Your task to perform on an android device: Add "rayovac triple a" to the cart on amazon, then select checkout. Image 0: 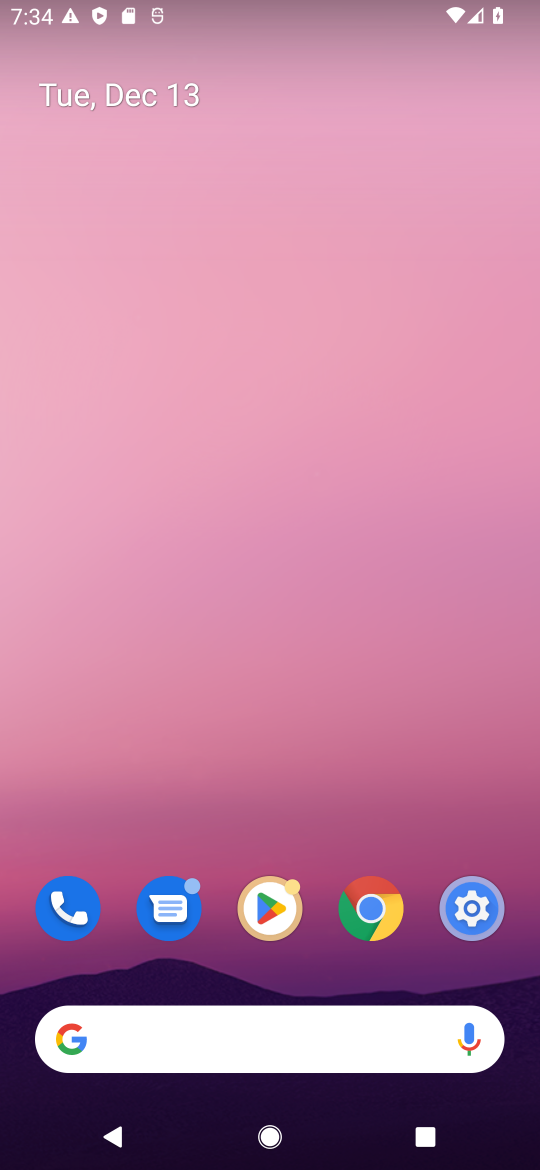
Step 0: press home button
Your task to perform on an android device: Add "rayovac triple a" to the cart on amazon, then select checkout. Image 1: 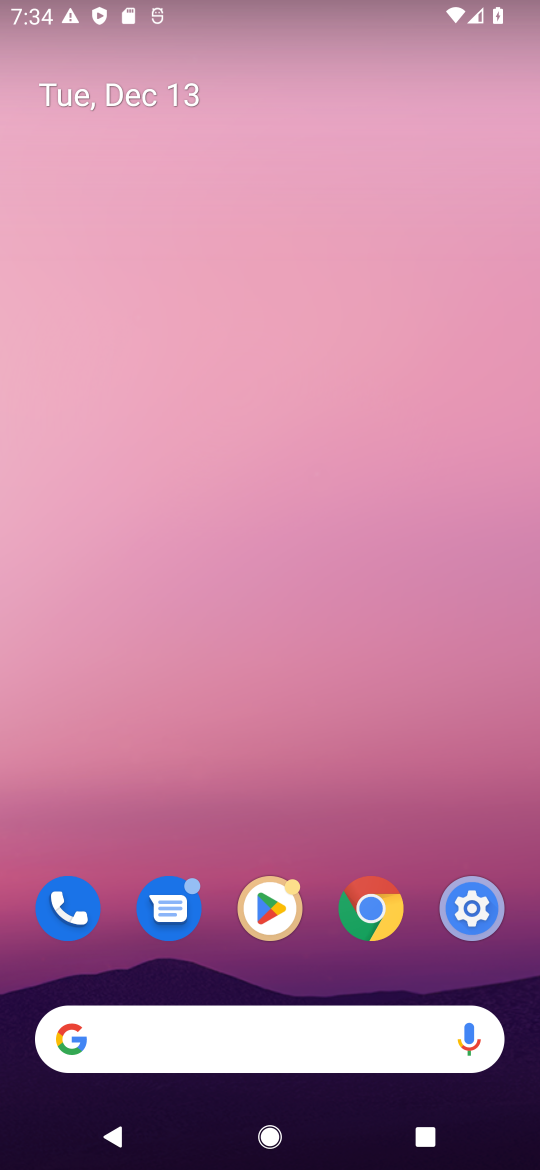
Step 1: click (111, 1027)
Your task to perform on an android device: Add "rayovac triple a" to the cart on amazon, then select checkout. Image 2: 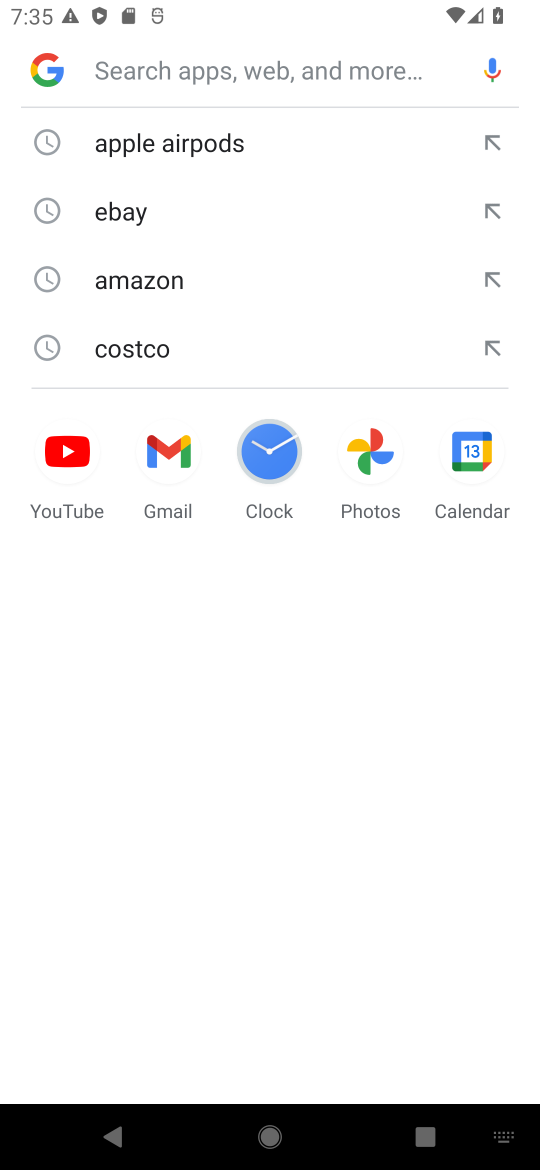
Step 2: type "amazon"
Your task to perform on an android device: Add "rayovac triple a" to the cart on amazon, then select checkout. Image 3: 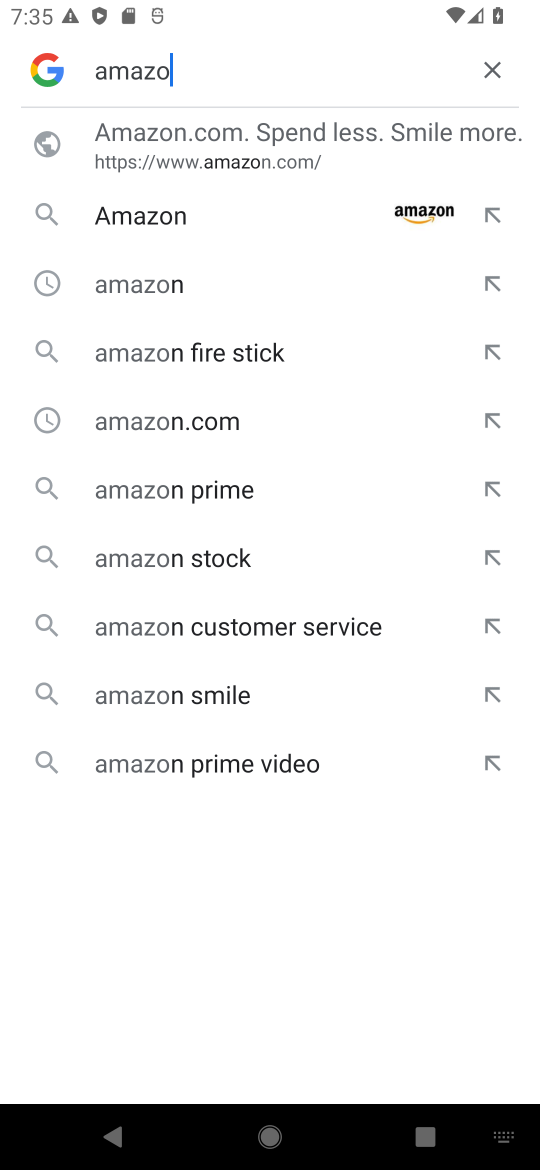
Step 3: press enter
Your task to perform on an android device: Add "rayovac triple a" to the cart on amazon, then select checkout. Image 4: 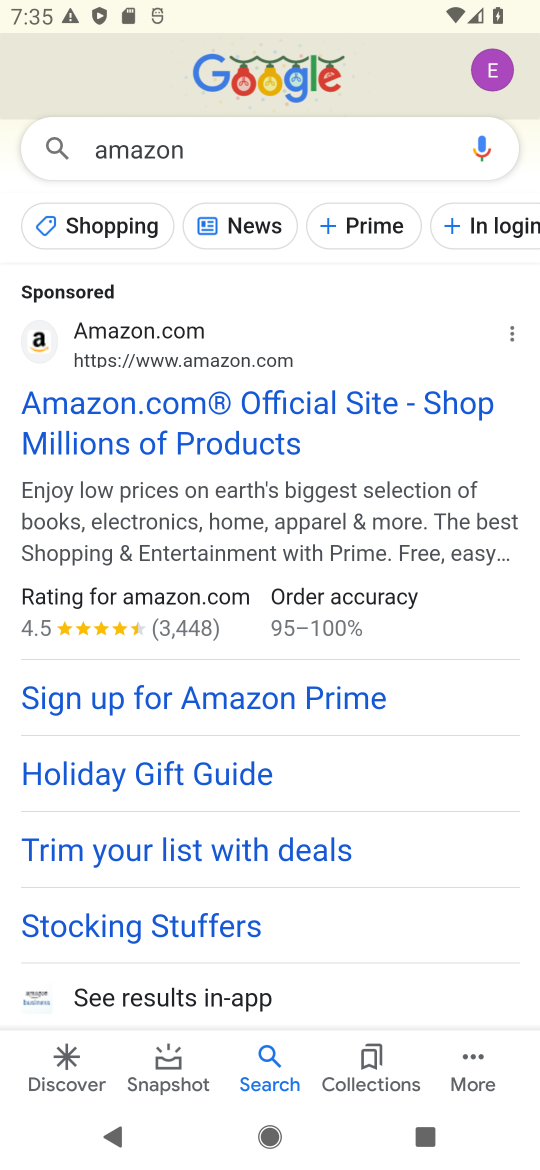
Step 4: click (104, 423)
Your task to perform on an android device: Add "rayovac triple a" to the cart on amazon, then select checkout. Image 5: 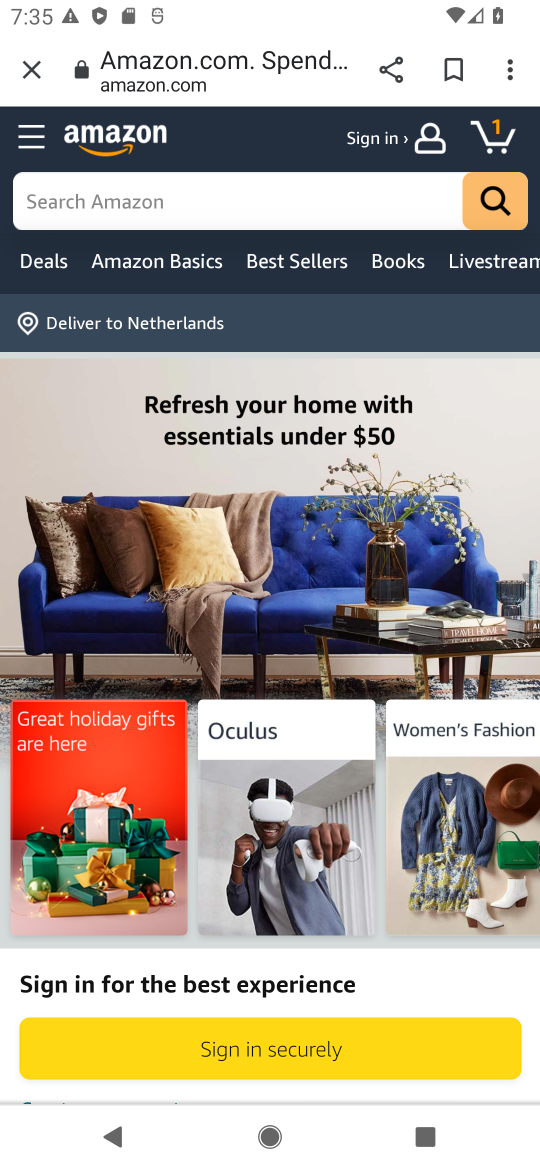
Step 5: click (83, 205)
Your task to perform on an android device: Add "rayovac triple a" to the cart on amazon, then select checkout. Image 6: 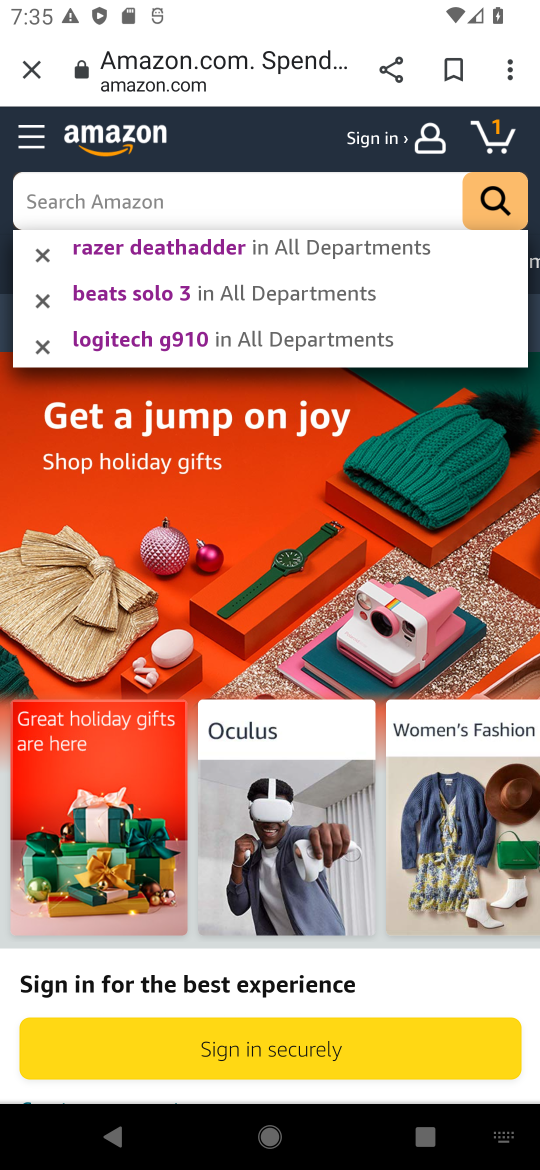
Step 6: type "rayovac triple a"
Your task to perform on an android device: Add "rayovac triple a" to the cart on amazon, then select checkout. Image 7: 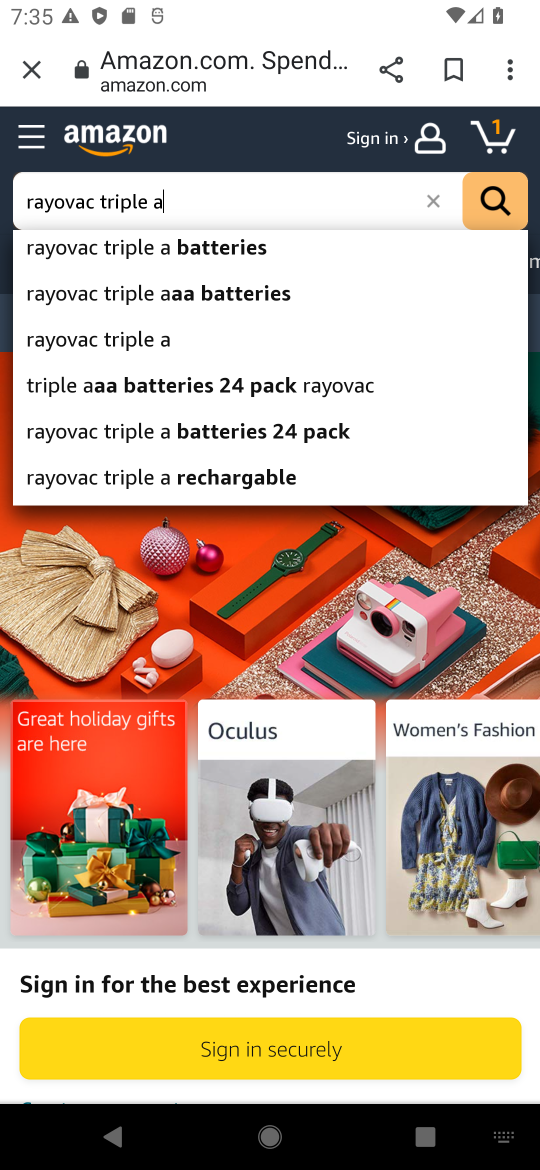
Step 7: click (495, 194)
Your task to perform on an android device: Add "rayovac triple a" to the cart on amazon, then select checkout. Image 8: 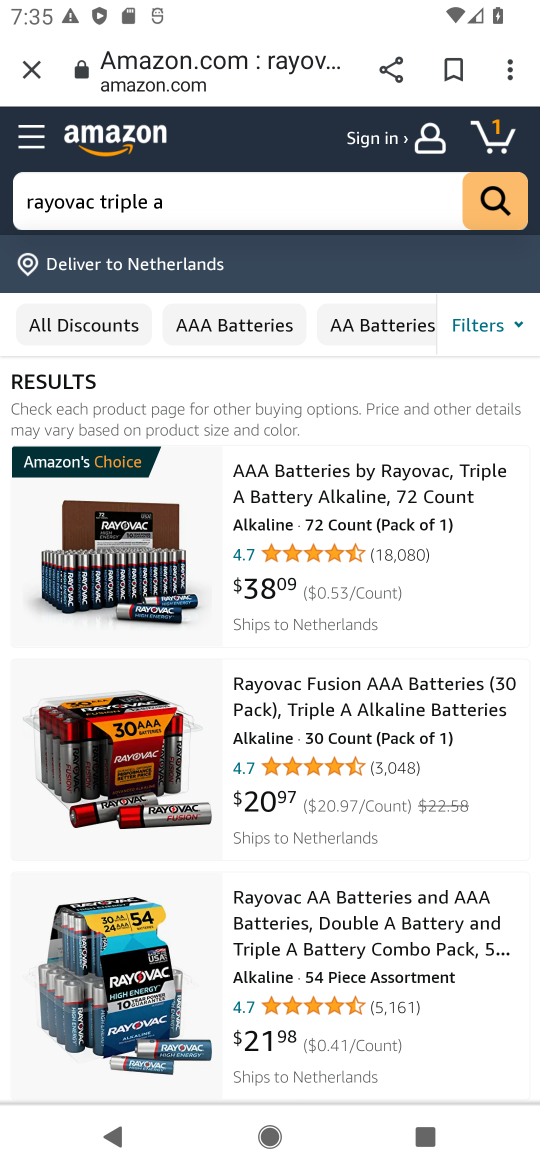
Step 8: click (331, 485)
Your task to perform on an android device: Add "rayovac triple a" to the cart on amazon, then select checkout. Image 9: 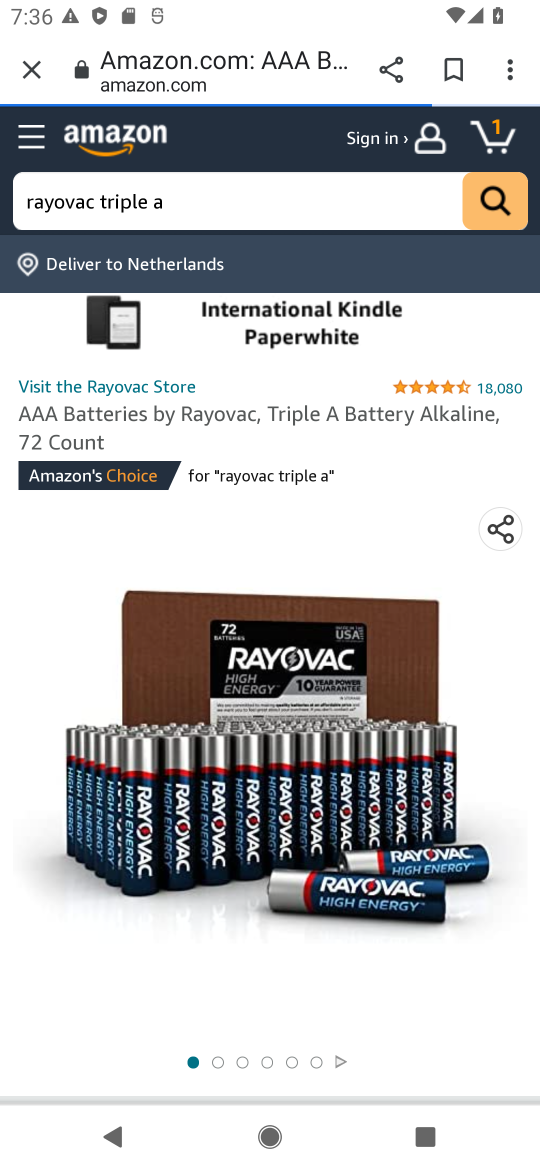
Step 9: drag from (294, 1005) to (272, 414)
Your task to perform on an android device: Add "rayovac triple a" to the cart on amazon, then select checkout. Image 10: 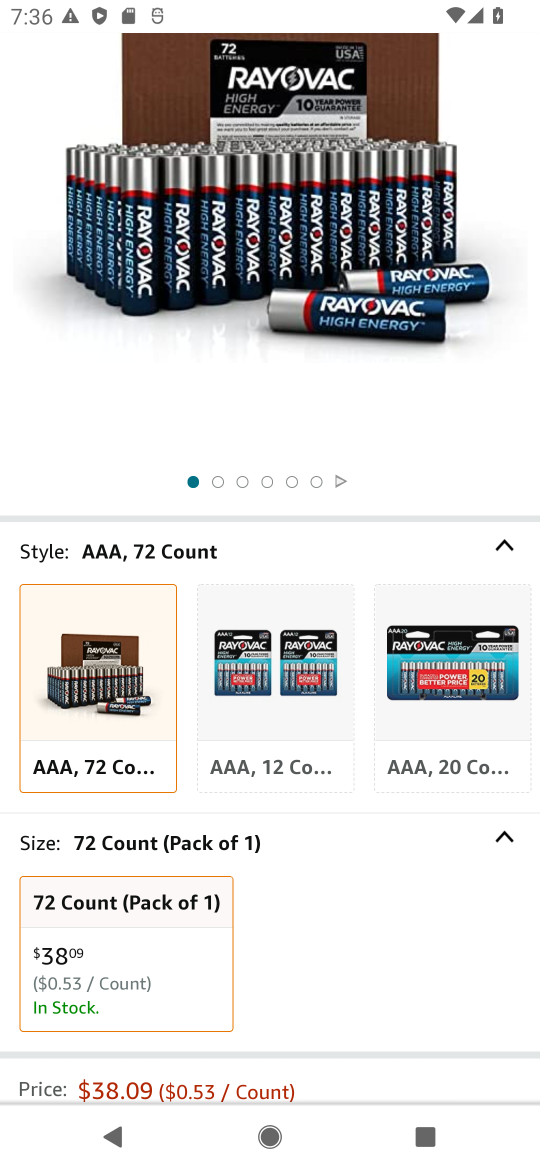
Step 10: drag from (283, 990) to (256, 357)
Your task to perform on an android device: Add "rayovac triple a" to the cart on amazon, then select checkout. Image 11: 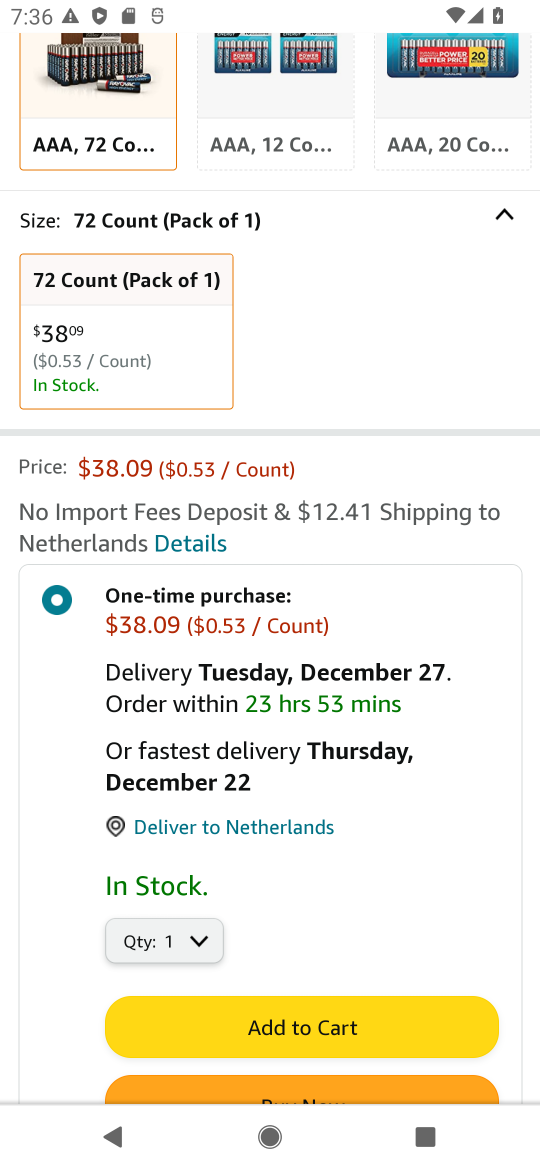
Step 11: drag from (327, 955) to (328, 339)
Your task to perform on an android device: Add "rayovac triple a" to the cart on amazon, then select checkout. Image 12: 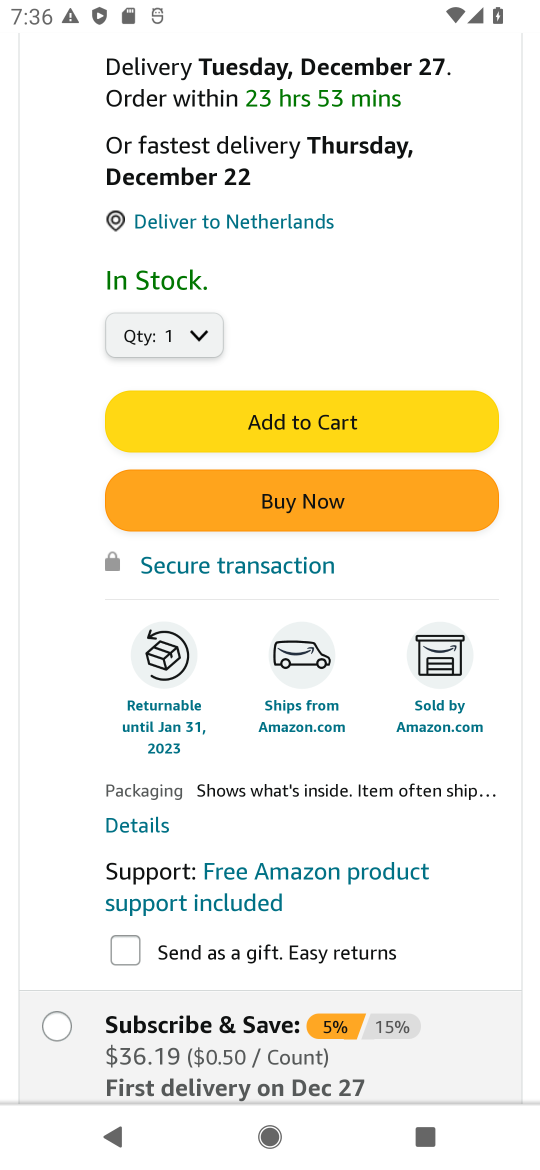
Step 12: click (259, 417)
Your task to perform on an android device: Add "rayovac triple a" to the cart on amazon, then select checkout. Image 13: 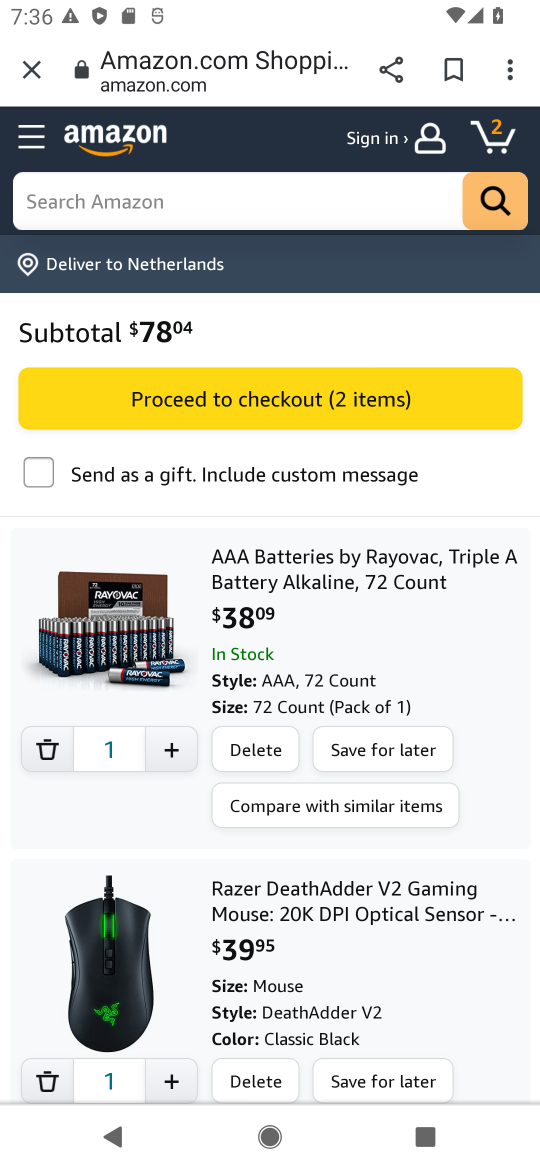
Step 13: click (167, 391)
Your task to perform on an android device: Add "rayovac triple a" to the cart on amazon, then select checkout. Image 14: 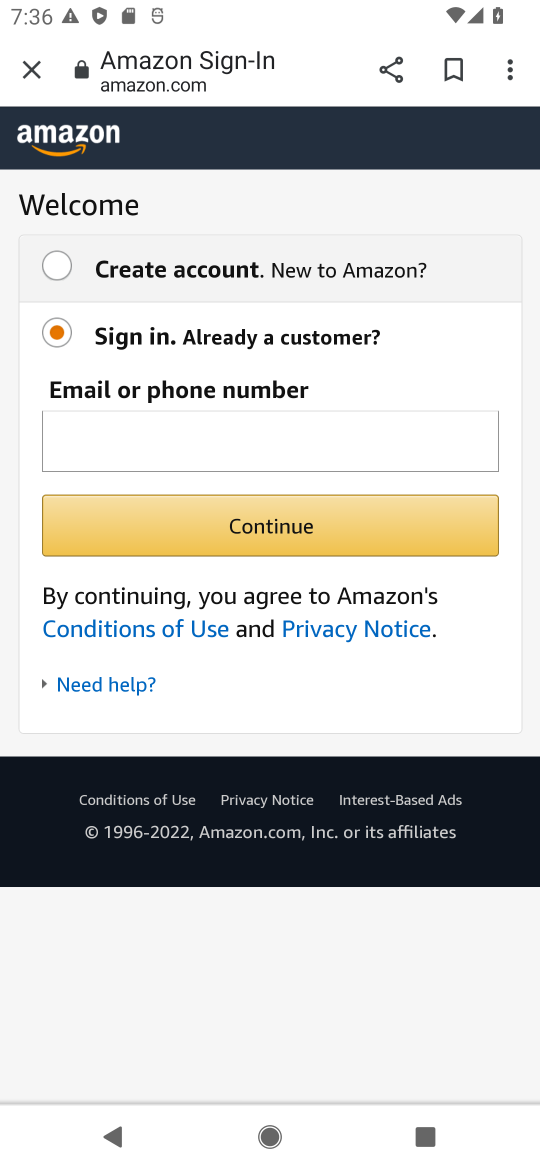
Step 14: task complete